Your task to perform on an android device: Open Wikipedia Image 0: 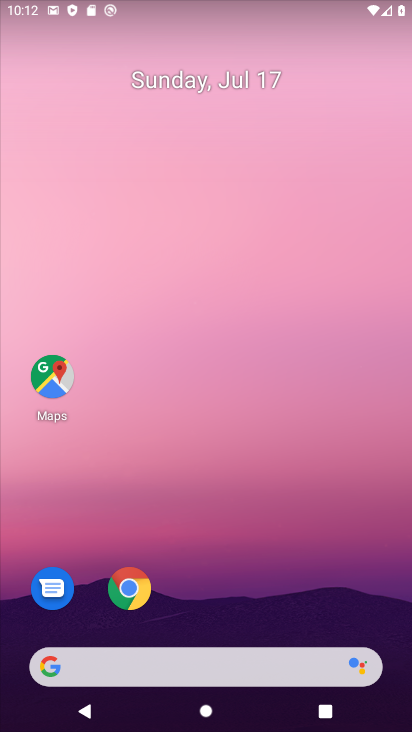
Step 0: press home button
Your task to perform on an android device: Open Wikipedia Image 1: 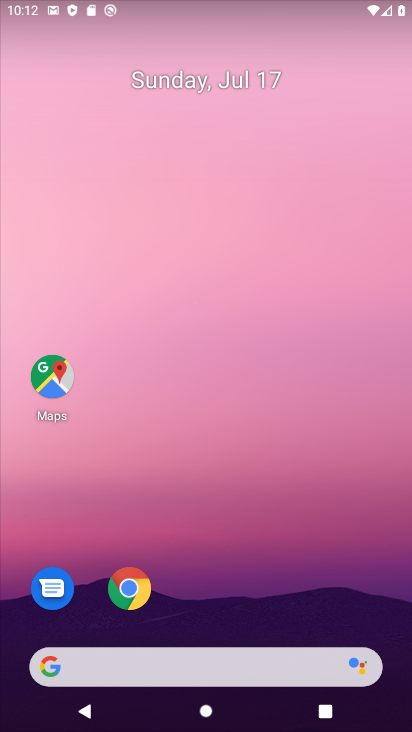
Step 1: click (117, 608)
Your task to perform on an android device: Open Wikipedia Image 2: 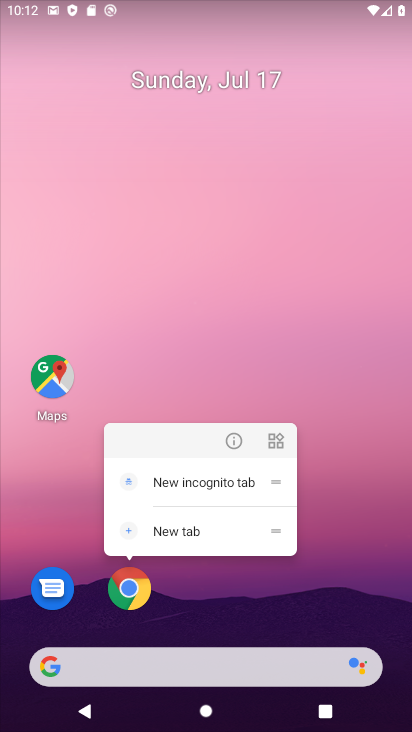
Step 2: click (125, 597)
Your task to perform on an android device: Open Wikipedia Image 3: 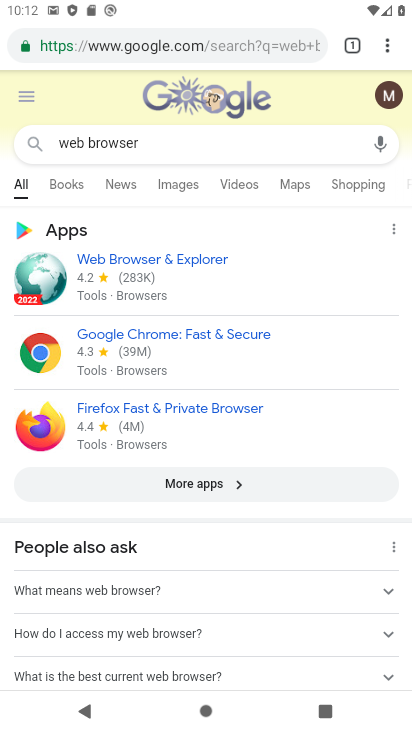
Step 3: drag from (391, 43) to (110, 0)
Your task to perform on an android device: Open Wikipedia Image 4: 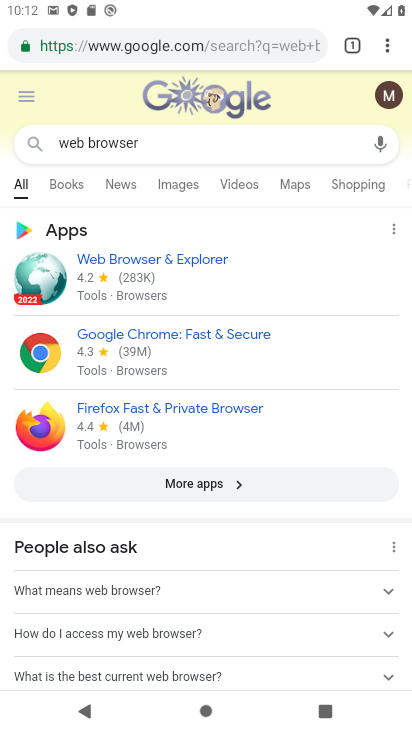
Step 4: click (74, 48)
Your task to perform on an android device: Open Wikipedia Image 5: 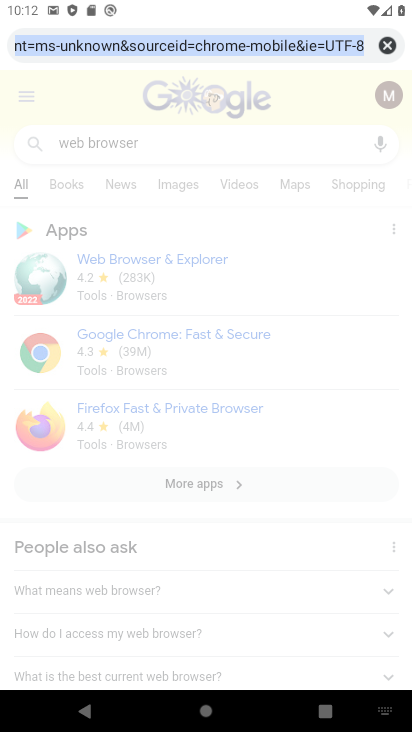
Step 5: click (387, 40)
Your task to perform on an android device: Open Wikipedia Image 6: 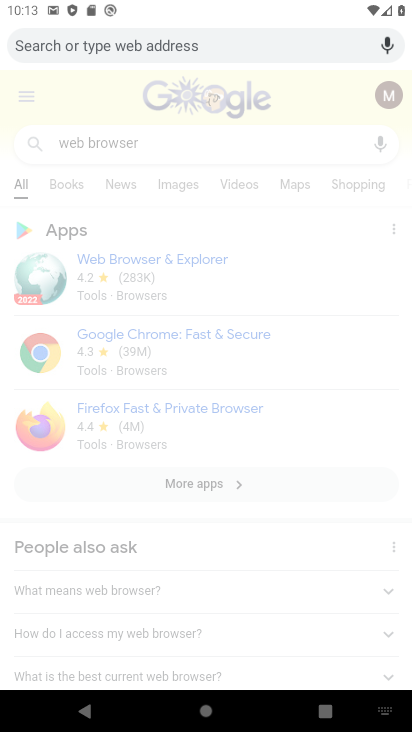
Step 6: type "Wikipedia"
Your task to perform on an android device: Open Wikipedia Image 7: 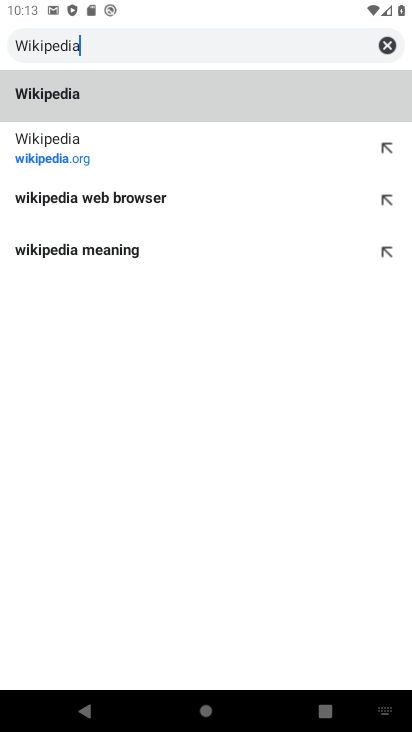
Step 7: type ""
Your task to perform on an android device: Open Wikipedia Image 8: 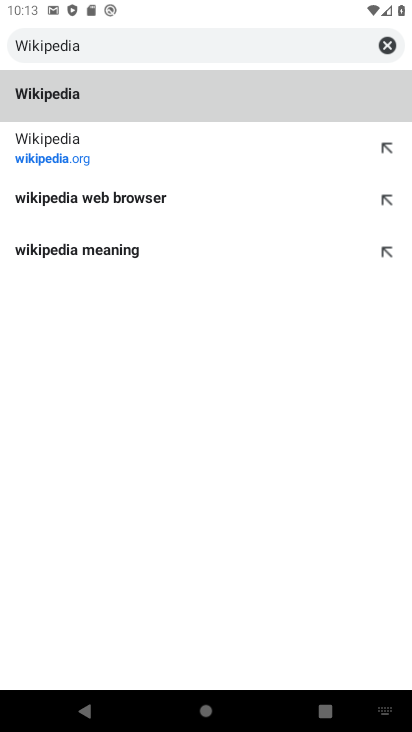
Step 8: click (57, 141)
Your task to perform on an android device: Open Wikipedia Image 9: 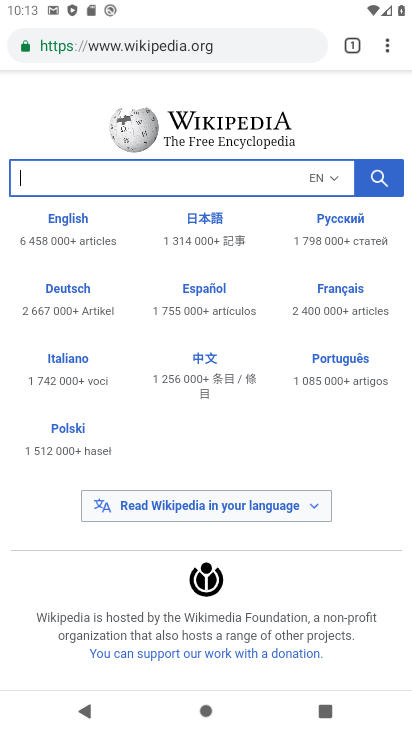
Step 9: task complete